Your task to perform on an android device: Open the calendar and show me this week's events? Image 0: 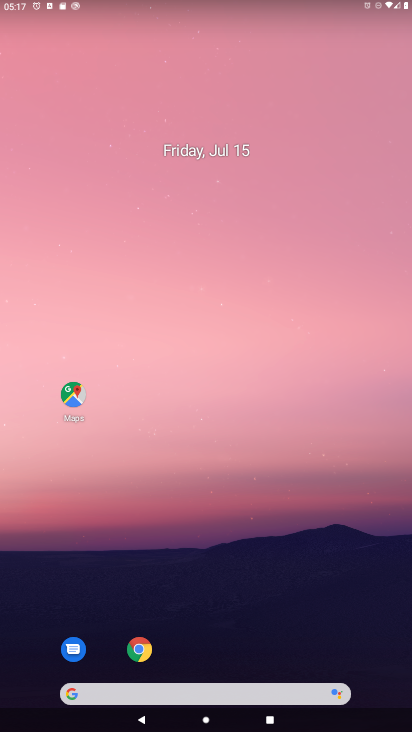
Step 0: drag from (388, 668) to (361, 45)
Your task to perform on an android device: Open the calendar and show me this week's events? Image 1: 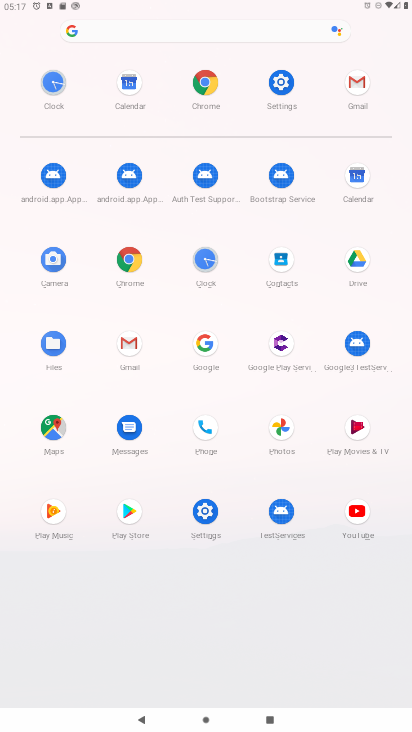
Step 1: click (356, 174)
Your task to perform on an android device: Open the calendar and show me this week's events? Image 2: 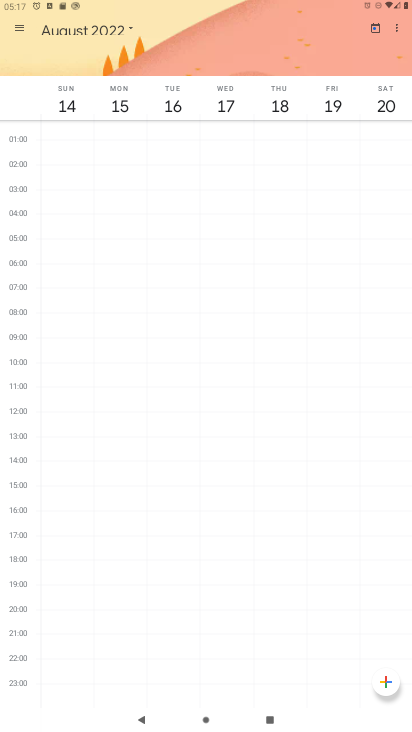
Step 2: click (12, 23)
Your task to perform on an android device: Open the calendar and show me this week's events? Image 3: 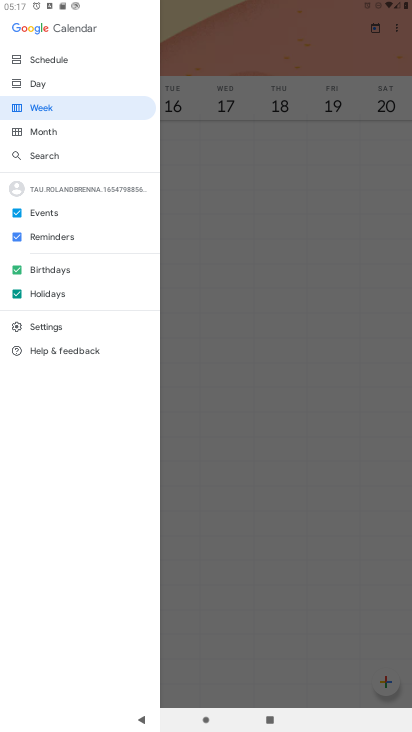
Step 3: click (237, 220)
Your task to perform on an android device: Open the calendar and show me this week's events? Image 4: 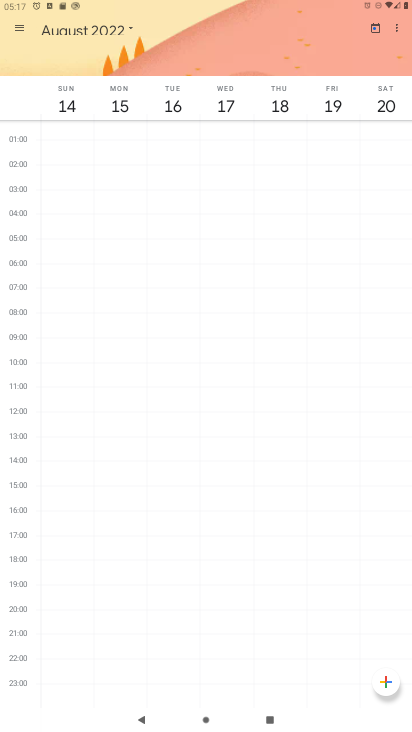
Step 4: click (132, 26)
Your task to perform on an android device: Open the calendar and show me this week's events? Image 5: 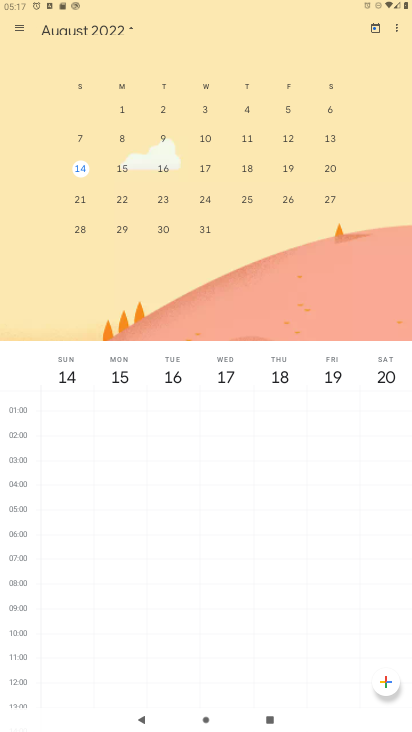
Step 5: drag from (78, 202) to (359, 194)
Your task to perform on an android device: Open the calendar and show me this week's events? Image 6: 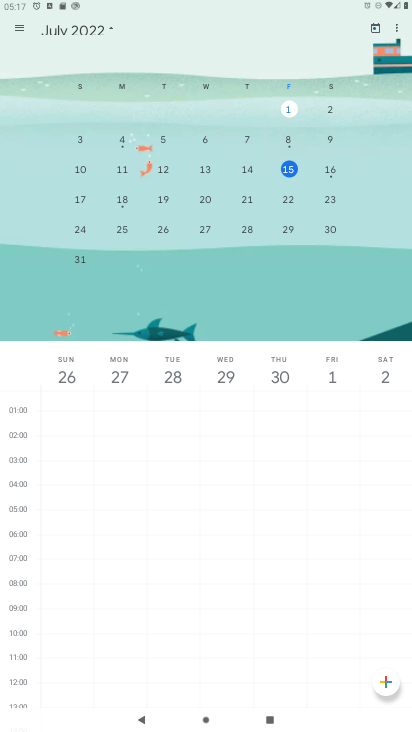
Step 6: click (75, 202)
Your task to perform on an android device: Open the calendar and show me this week's events? Image 7: 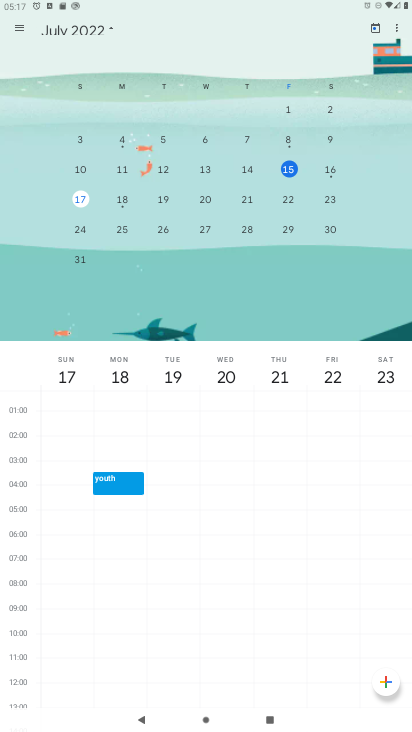
Step 7: task complete